Your task to perform on an android device: toggle airplane mode Image 0: 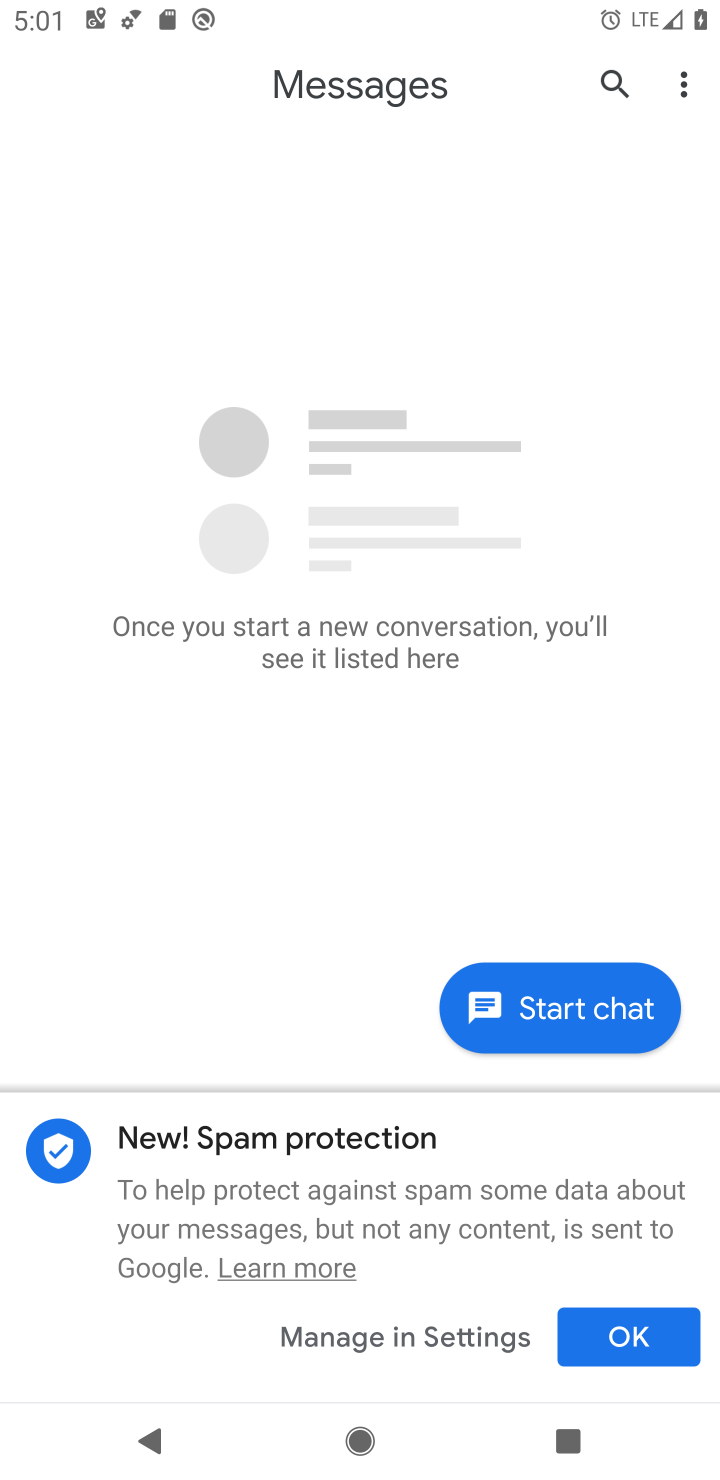
Step 0: press home button
Your task to perform on an android device: toggle airplane mode Image 1: 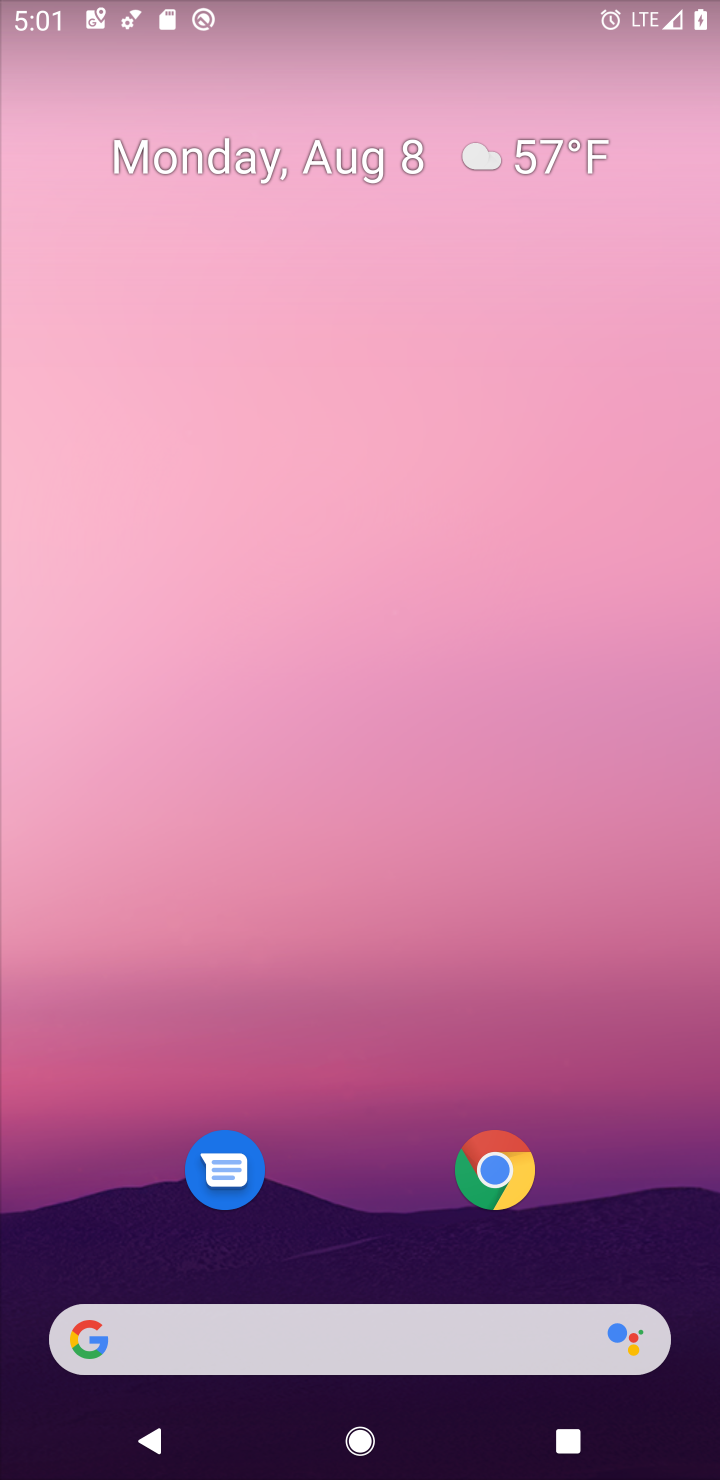
Step 1: drag from (337, 1225) to (327, 194)
Your task to perform on an android device: toggle airplane mode Image 2: 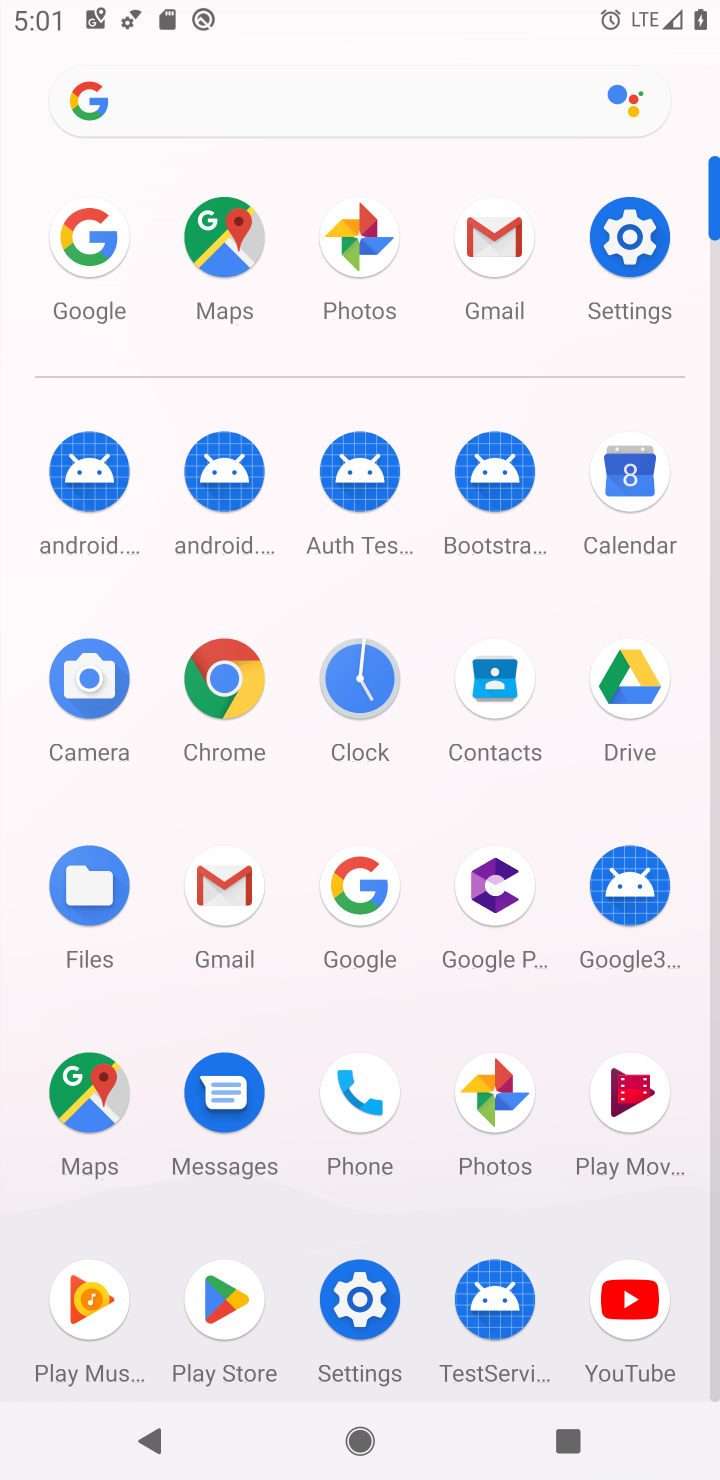
Step 2: click (620, 245)
Your task to perform on an android device: toggle airplane mode Image 3: 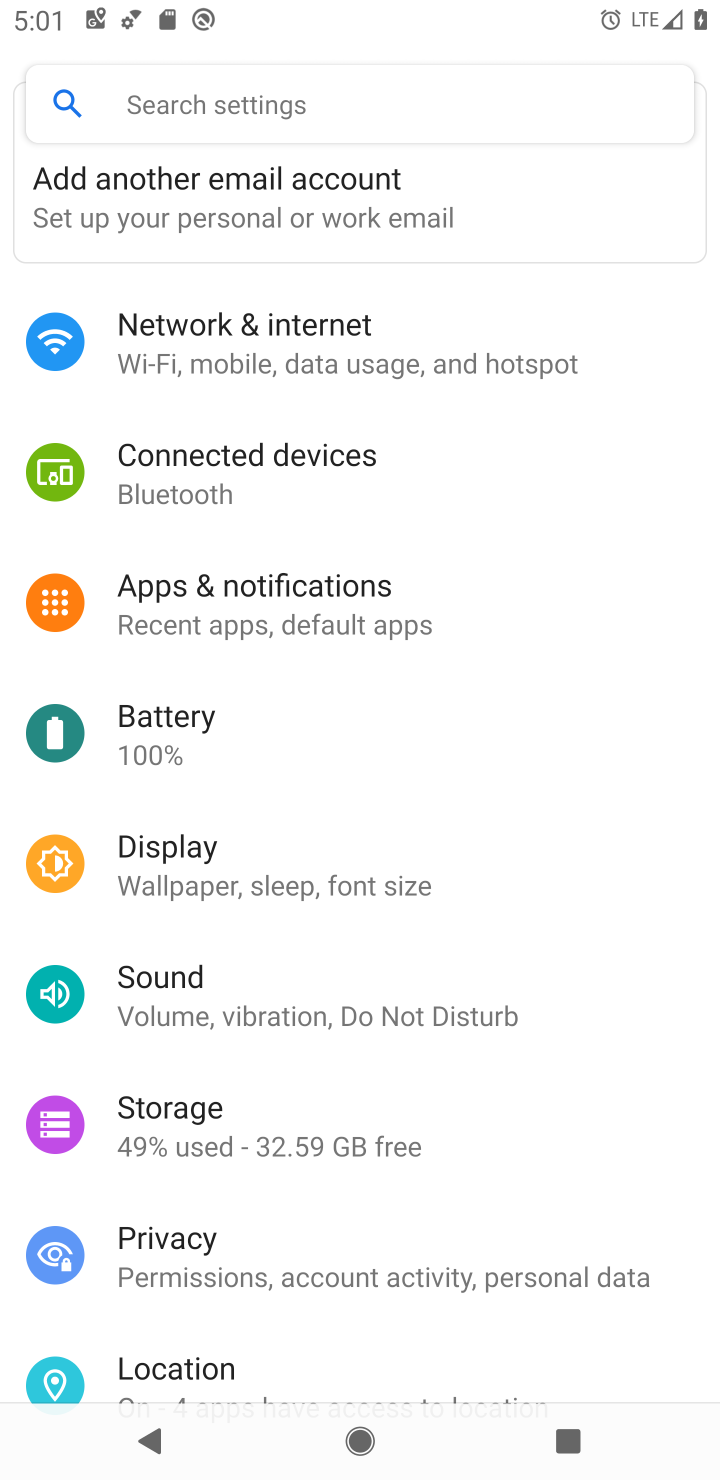
Step 3: click (269, 398)
Your task to perform on an android device: toggle airplane mode Image 4: 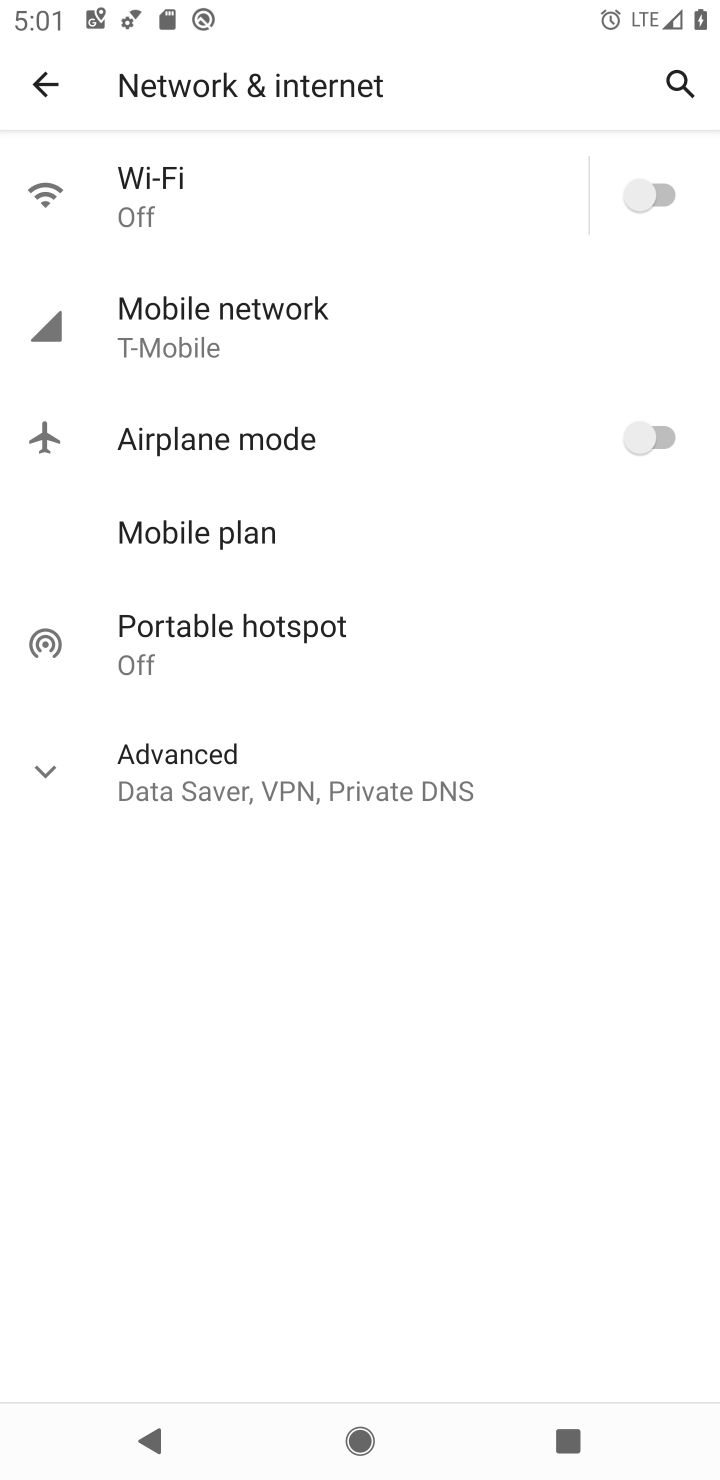
Step 4: click (675, 435)
Your task to perform on an android device: toggle airplane mode Image 5: 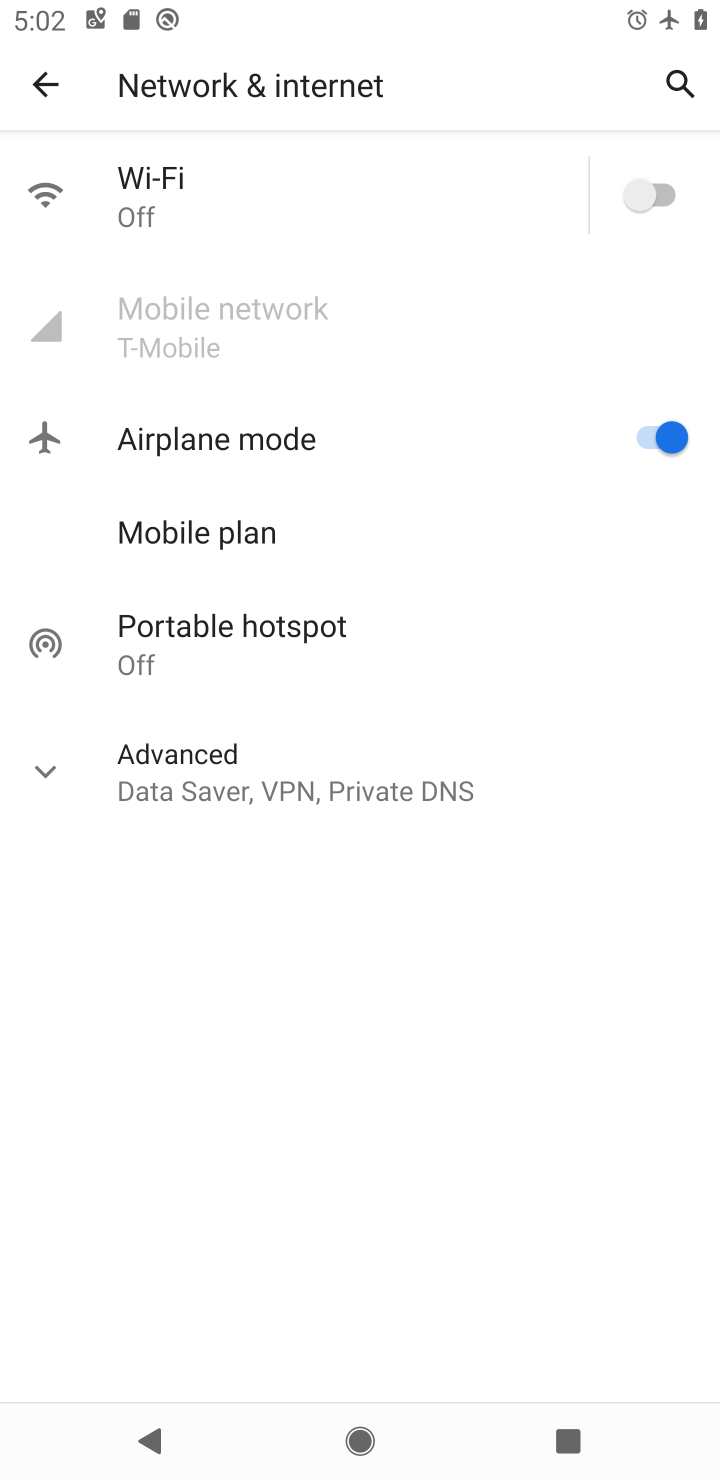
Step 5: task complete